Your task to perform on an android device: Clear the cart on target.com. Add "apple airpods pro" to the cart on target.com Image 0: 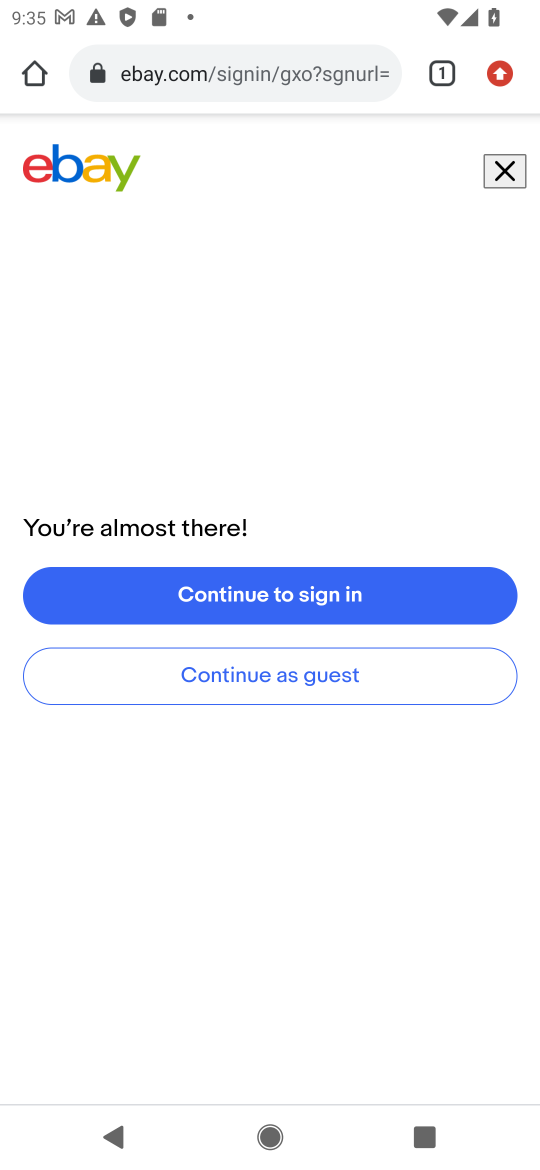
Step 0: click (153, 68)
Your task to perform on an android device: Clear the cart on target.com. Add "apple airpods pro" to the cart on target.com Image 1: 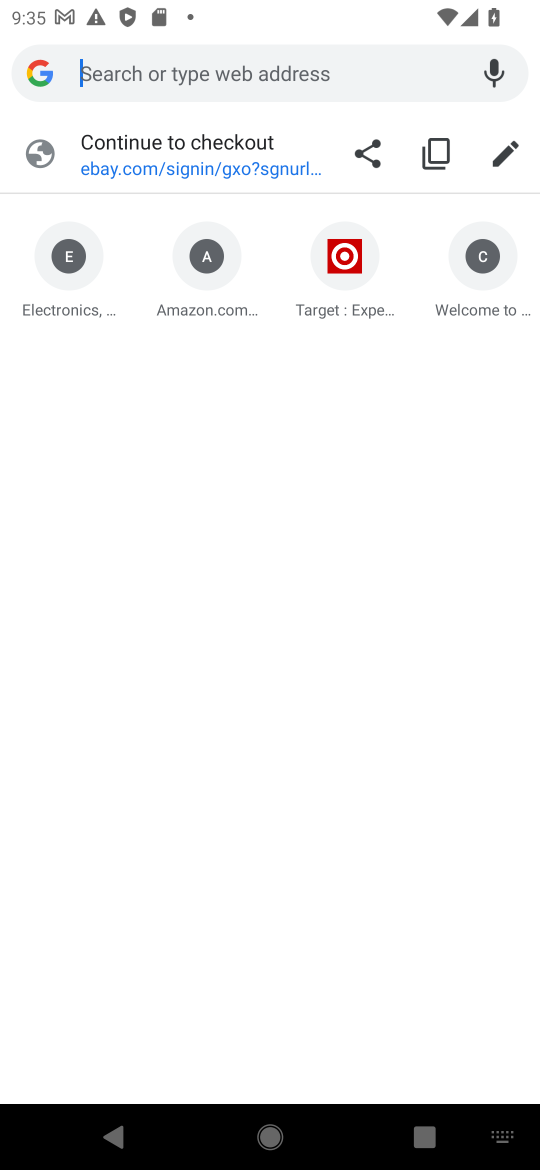
Step 1: click (338, 296)
Your task to perform on an android device: Clear the cart on target.com. Add "apple airpods pro" to the cart on target.com Image 2: 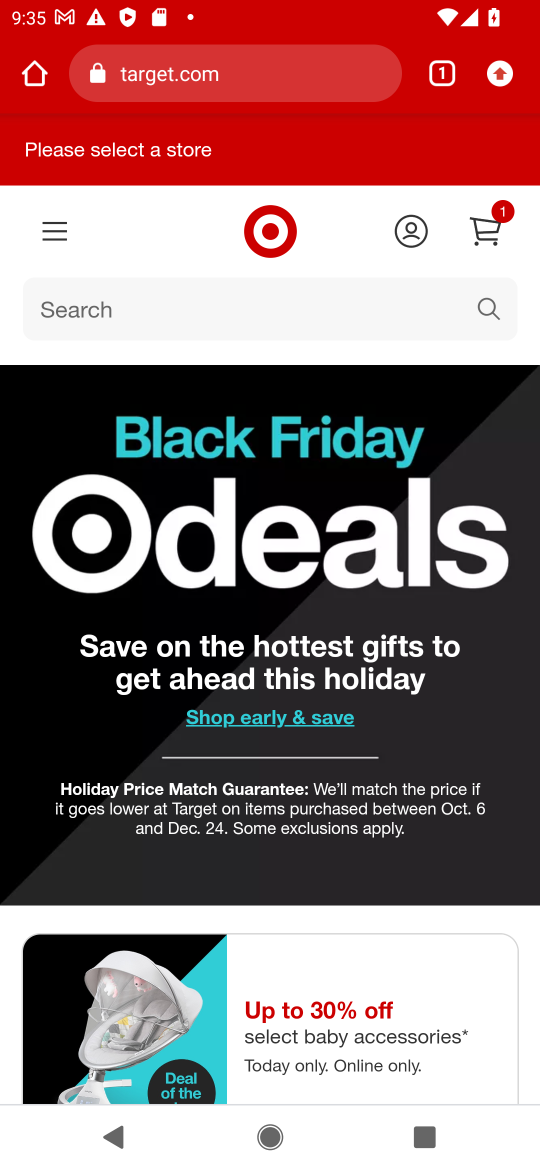
Step 2: click (482, 234)
Your task to perform on an android device: Clear the cart on target.com. Add "apple airpods pro" to the cart on target.com Image 3: 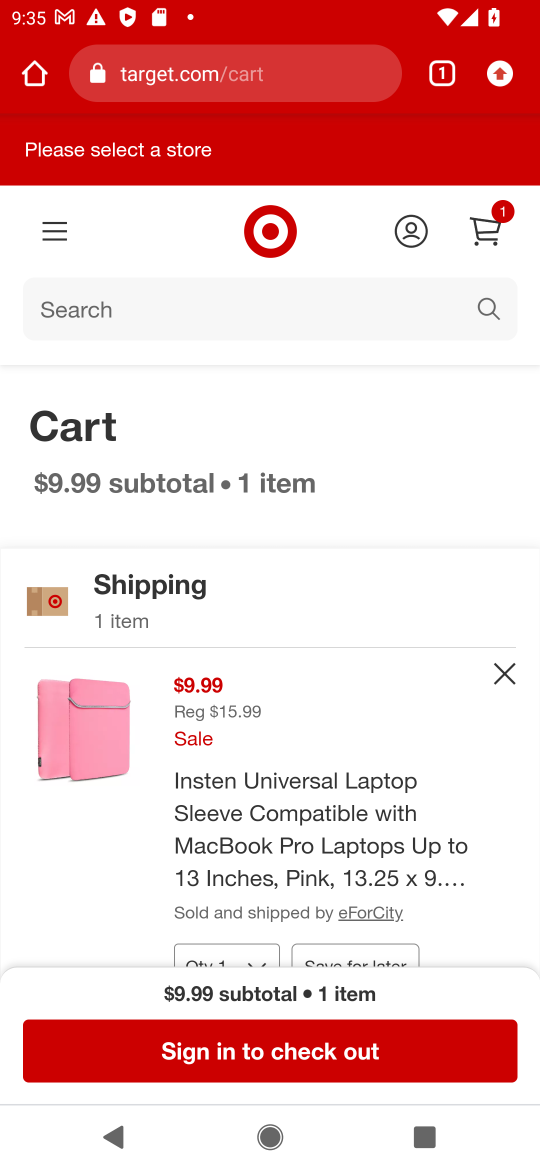
Step 3: drag from (256, 802) to (261, 481)
Your task to perform on an android device: Clear the cart on target.com. Add "apple airpods pro" to the cart on target.com Image 4: 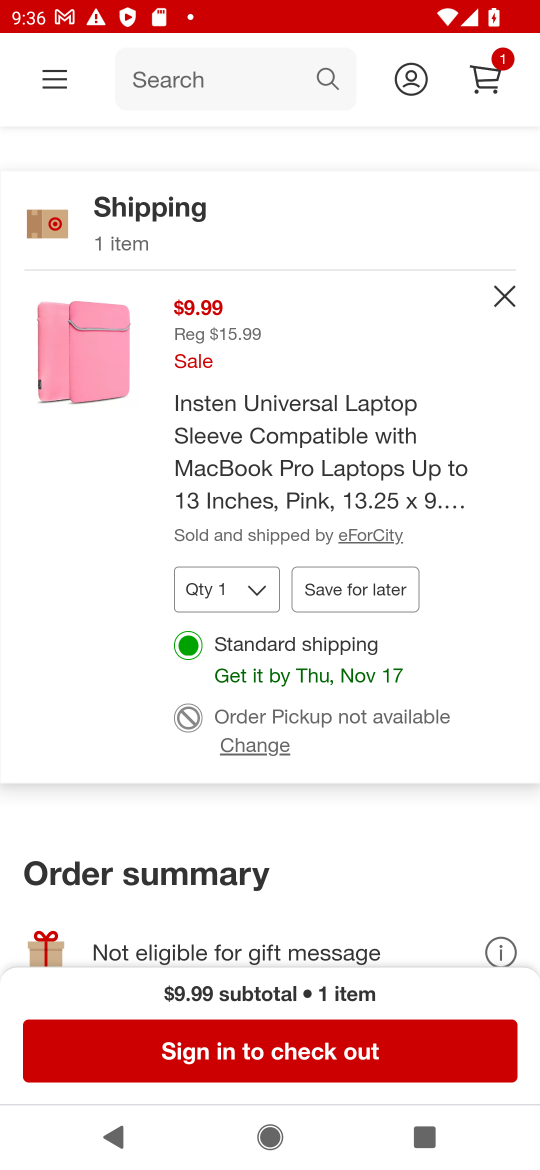
Step 4: click (505, 291)
Your task to perform on an android device: Clear the cart on target.com. Add "apple airpods pro" to the cart on target.com Image 5: 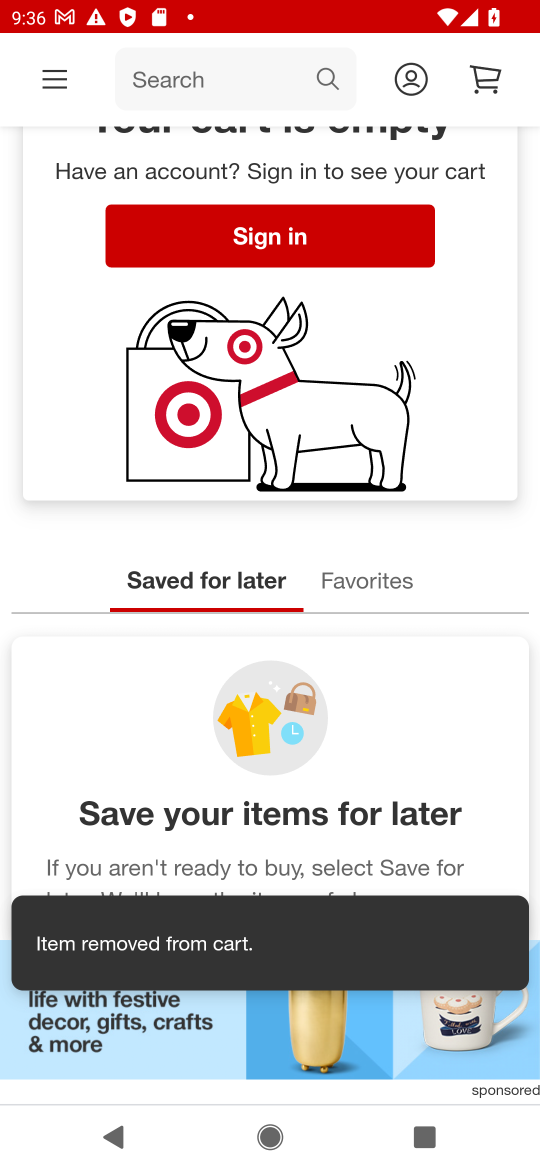
Step 5: drag from (389, 476) to (393, 770)
Your task to perform on an android device: Clear the cart on target.com. Add "apple airpods pro" to the cart on target.com Image 6: 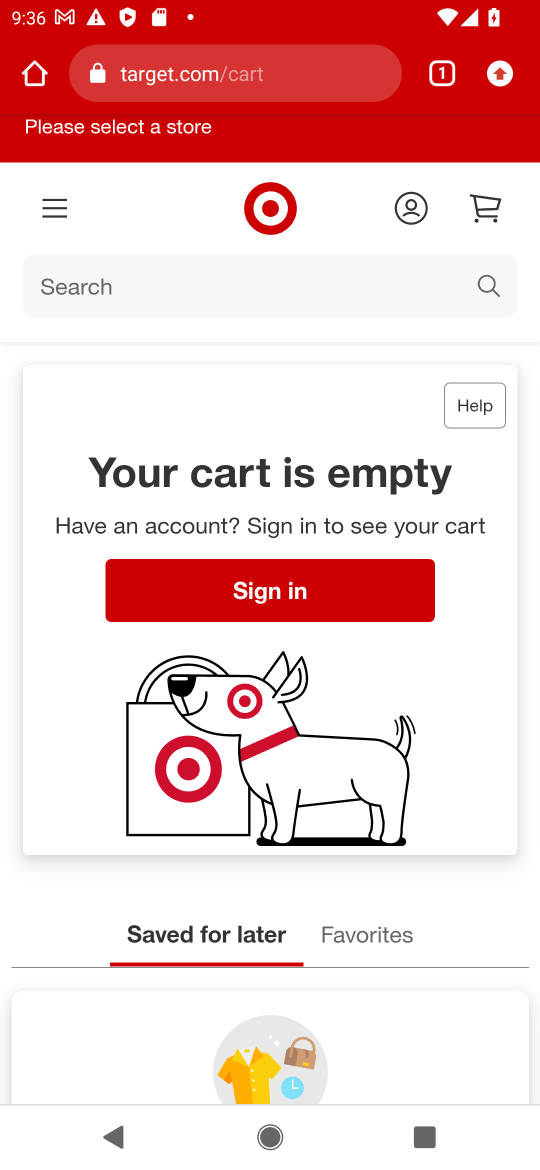
Step 6: click (481, 286)
Your task to perform on an android device: Clear the cart on target.com. Add "apple airpods pro" to the cart on target.com Image 7: 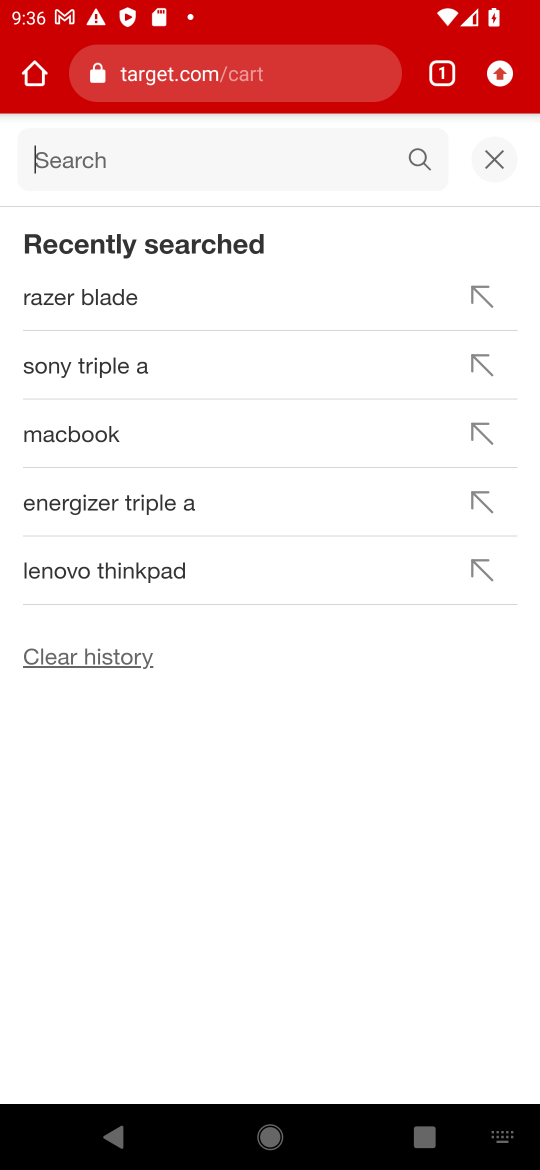
Step 7: type "apple airpods pro"
Your task to perform on an android device: Clear the cart on target.com. Add "apple airpods pro" to the cart on target.com Image 8: 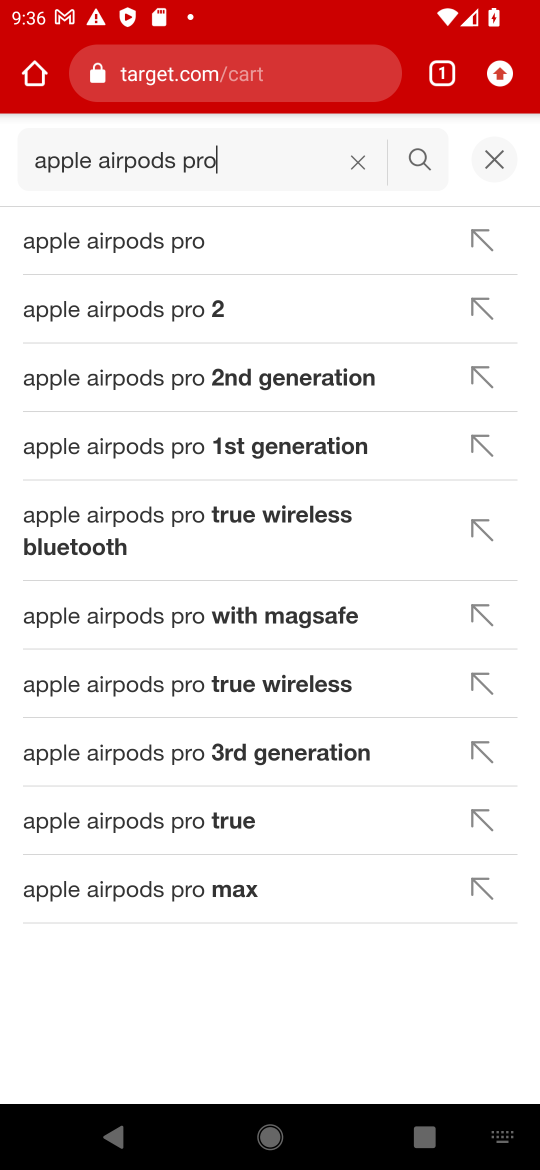
Step 8: click (173, 248)
Your task to perform on an android device: Clear the cart on target.com. Add "apple airpods pro" to the cart on target.com Image 9: 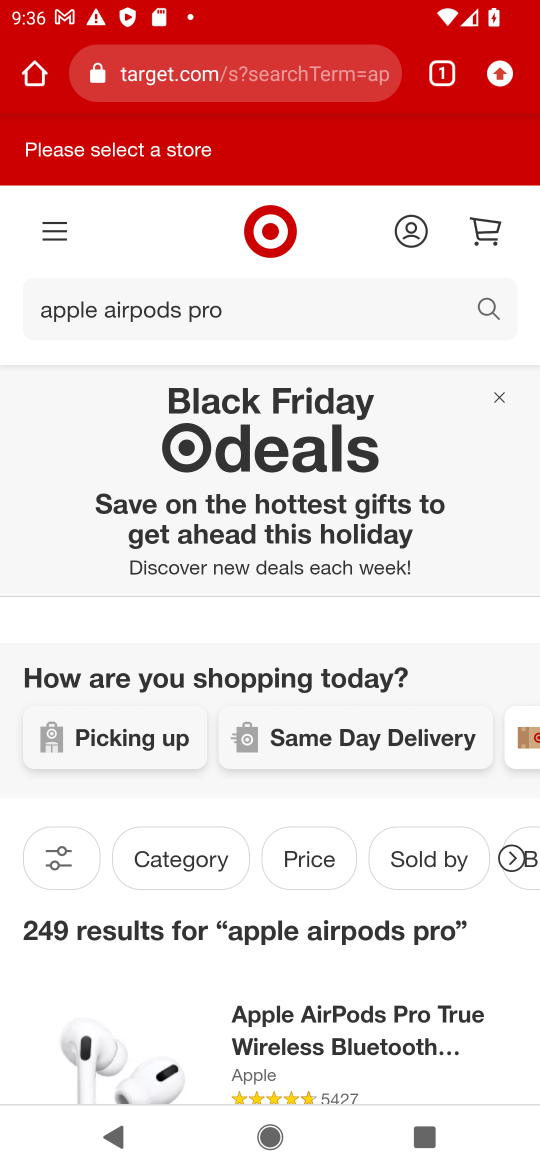
Step 9: drag from (242, 680) to (247, 388)
Your task to perform on an android device: Clear the cart on target.com. Add "apple airpods pro" to the cart on target.com Image 10: 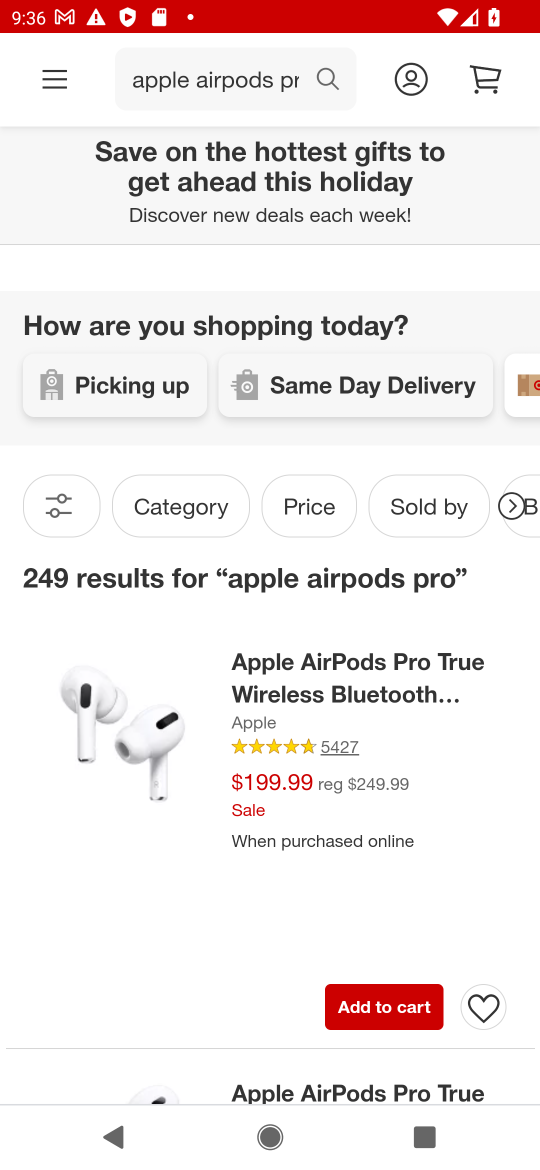
Step 10: click (376, 1013)
Your task to perform on an android device: Clear the cart on target.com. Add "apple airpods pro" to the cart on target.com Image 11: 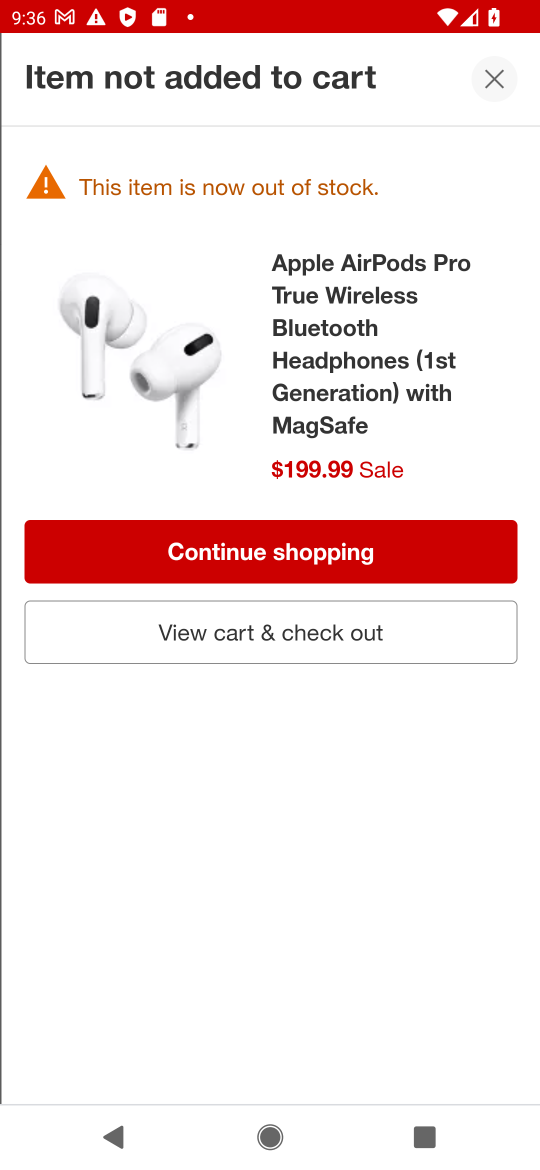
Step 11: task complete